Your task to perform on an android device: Open Chrome and go to settings Image 0: 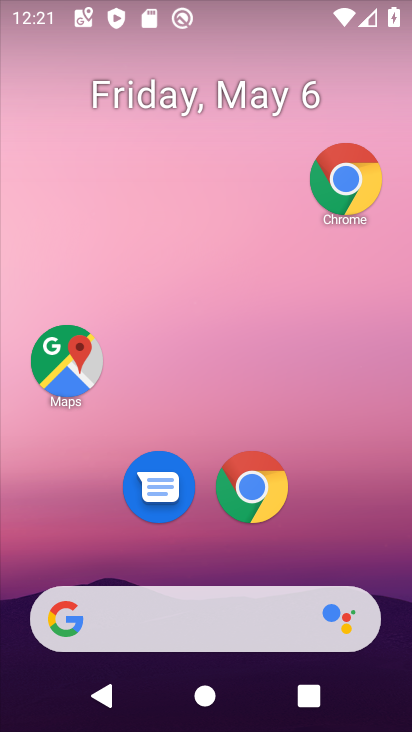
Step 0: click (273, 496)
Your task to perform on an android device: Open Chrome and go to settings Image 1: 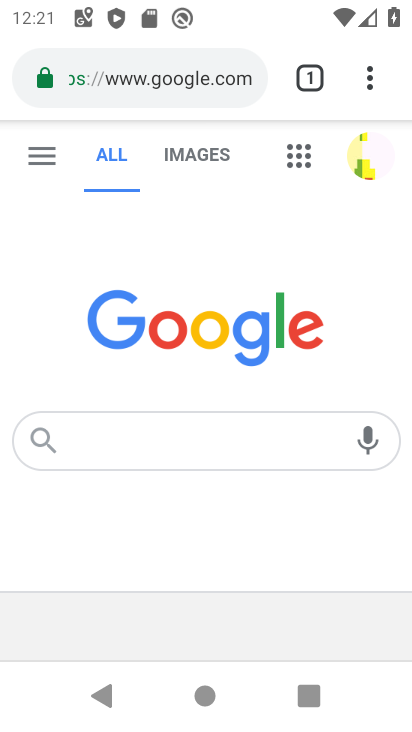
Step 1: click (365, 84)
Your task to perform on an android device: Open Chrome and go to settings Image 2: 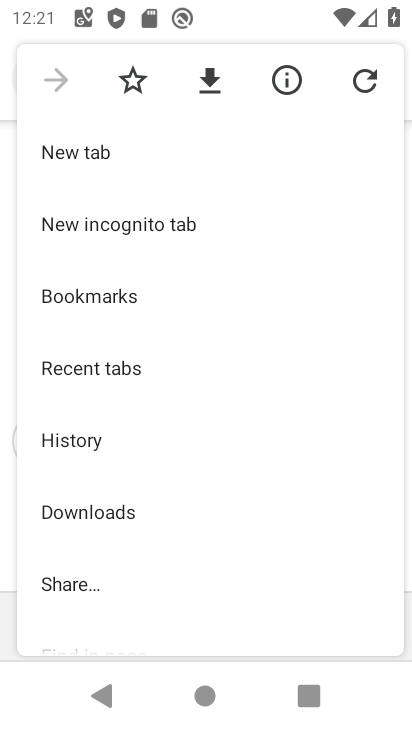
Step 2: drag from (180, 515) to (209, 361)
Your task to perform on an android device: Open Chrome and go to settings Image 3: 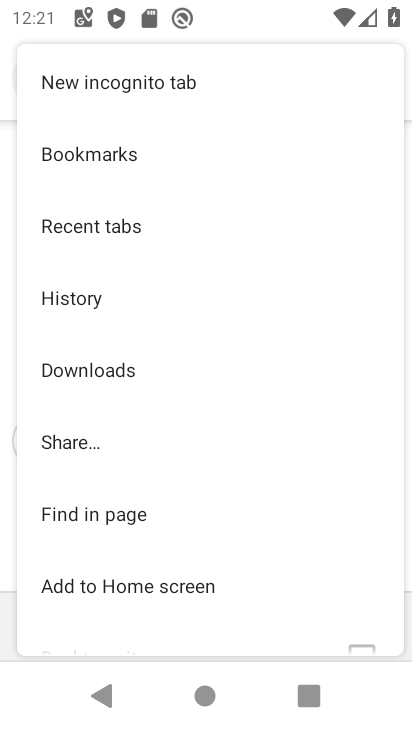
Step 3: drag from (153, 554) to (200, 361)
Your task to perform on an android device: Open Chrome and go to settings Image 4: 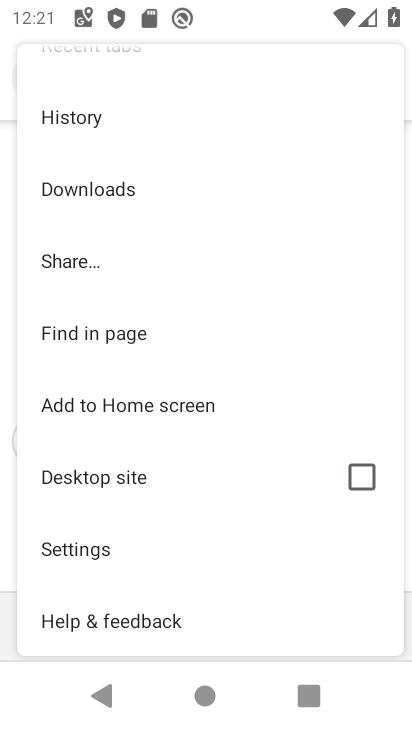
Step 4: click (148, 540)
Your task to perform on an android device: Open Chrome and go to settings Image 5: 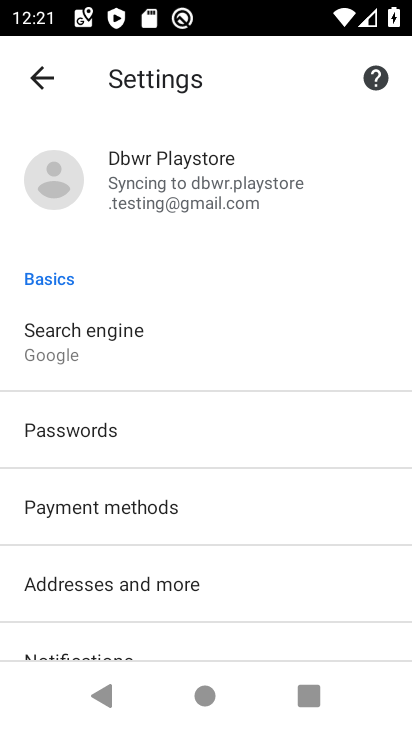
Step 5: task complete